Your task to perform on an android device: Open Google Chrome and open the bookmarks view Image 0: 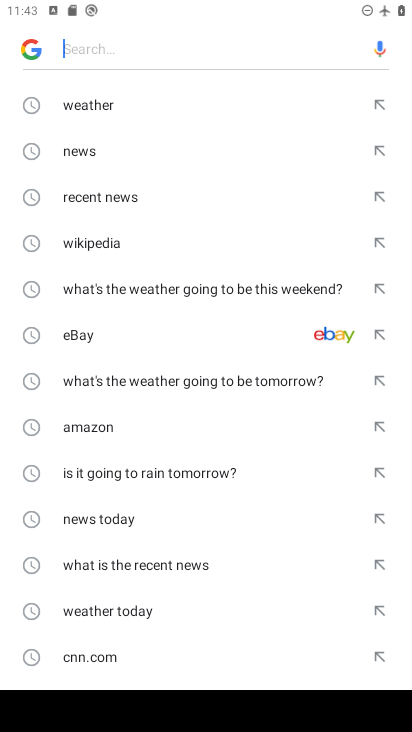
Step 0: press home button
Your task to perform on an android device: Open Google Chrome and open the bookmarks view Image 1: 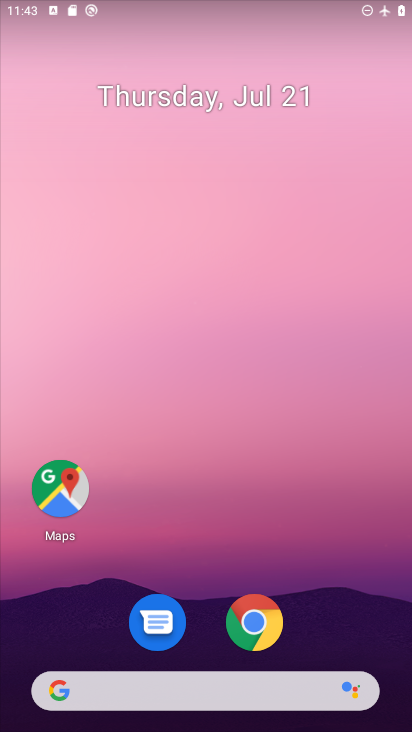
Step 1: click (258, 609)
Your task to perform on an android device: Open Google Chrome and open the bookmarks view Image 2: 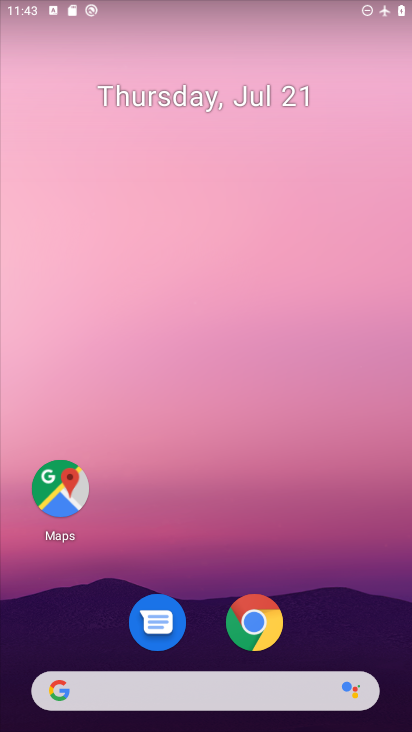
Step 2: click (258, 609)
Your task to perform on an android device: Open Google Chrome and open the bookmarks view Image 3: 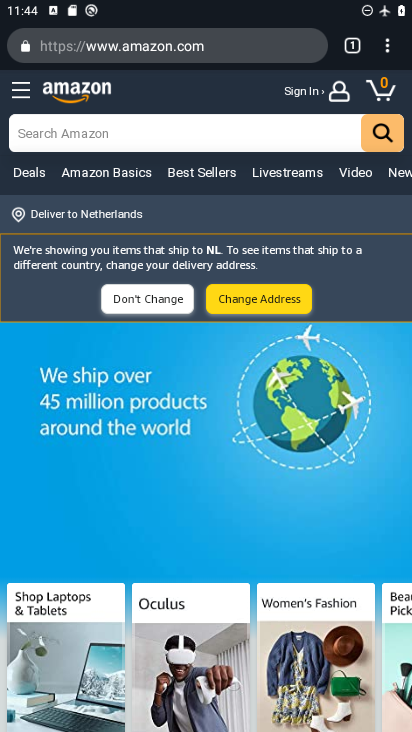
Step 3: click (385, 50)
Your task to perform on an android device: Open Google Chrome and open the bookmarks view Image 4: 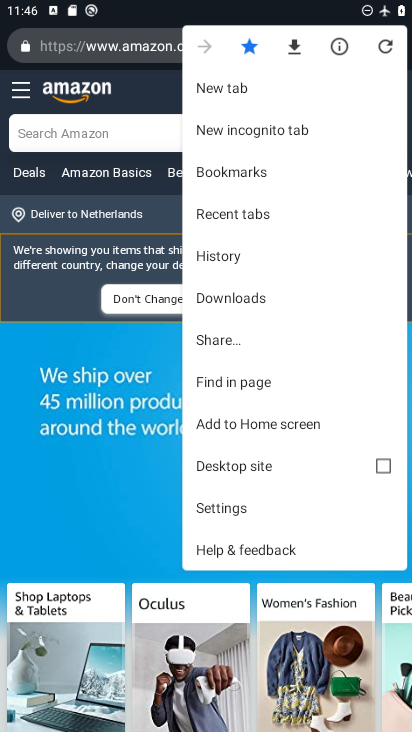
Step 4: click (290, 173)
Your task to perform on an android device: Open Google Chrome and open the bookmarks view Image 5: 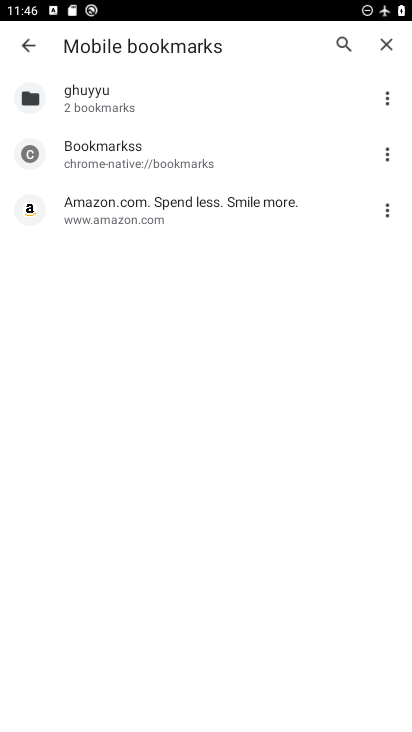
Step 5: click (292, 211)
Your task to perform on an android device: Open Google Chrome and open the bookmarks view Image 6: 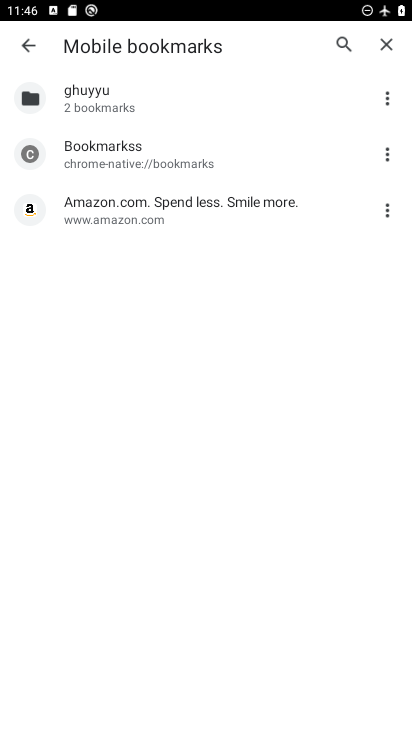
Step 6: click (292, 211)
Your task to perform on an android device: Open Google Chrome and open the bookmarks view Image 7: 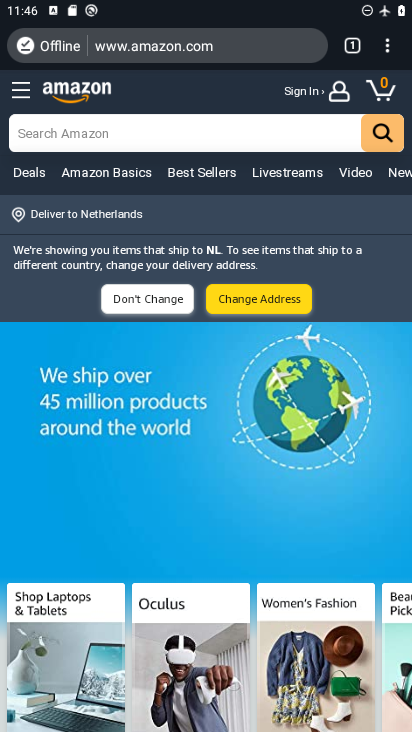
Step 7: task complete